Your task to perform on an android device: Open settings on Google Maps Image 0: 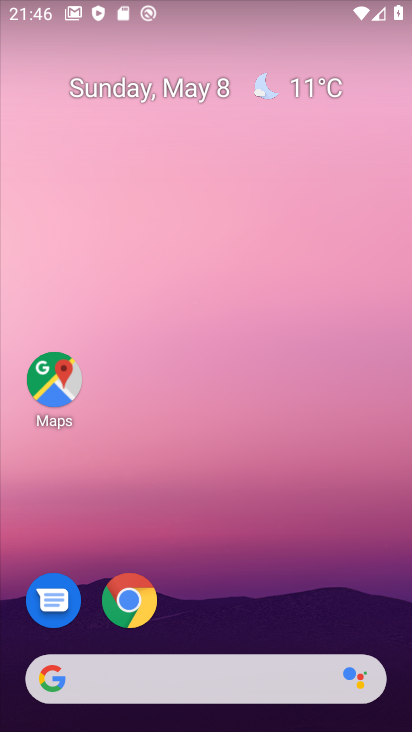
Step 0: click (65, 388)
Your task to perform on an android device: Open settings on Google Maps Image 1: 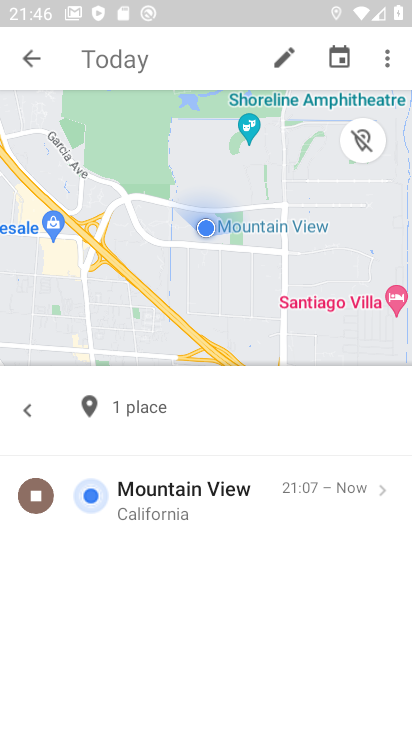
Step 1: click (39, 53)
Your task to perform on an android device: Open settings on Google Maps Image 2: 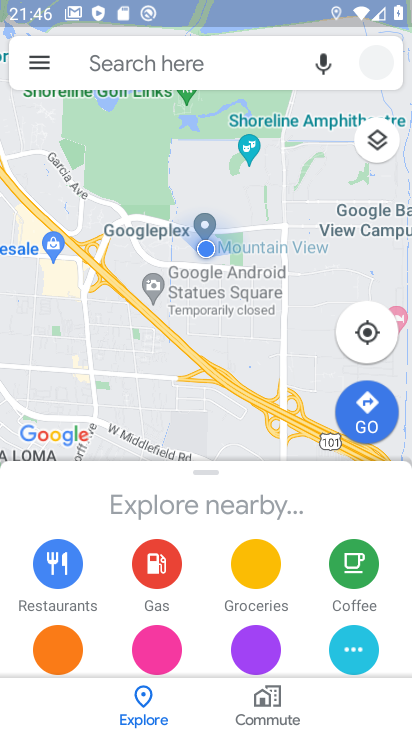
Step 2: click (39, 53)
Your task to perform on an android device: Open settings on Google Maps Image 3: 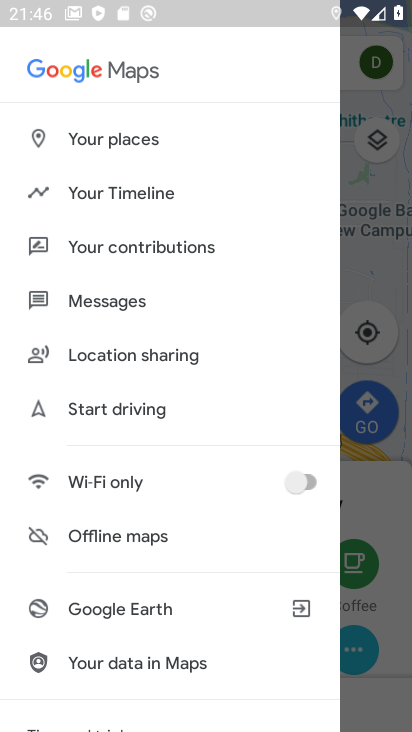
Step 3: drag from (78, 635) to (147, 55)
Your task to perform on an android device: Open settings on Google Maps Image 4: 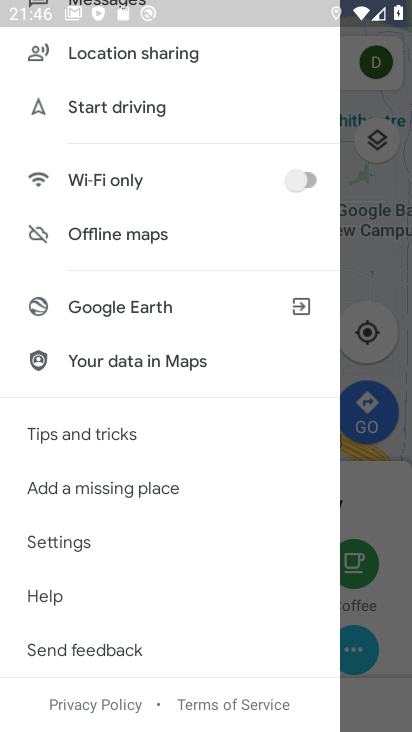
Step 4: click (81, 545)
Your task to perform on an android device: Open settings on Google Maps Image 5: 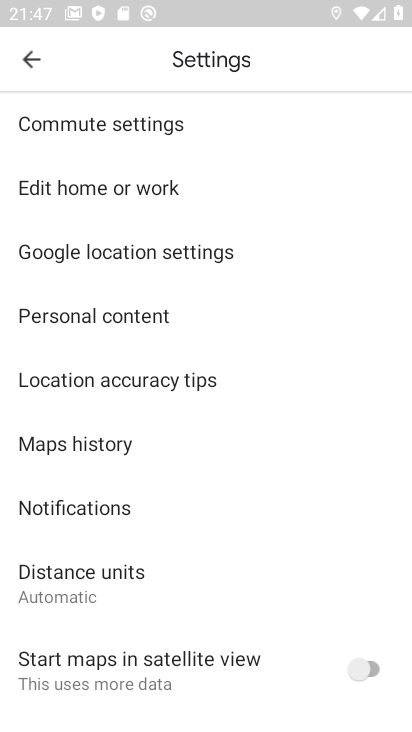
Step 5: task complete